Your task to perform on an android device: Open Reddit.com Image 0: 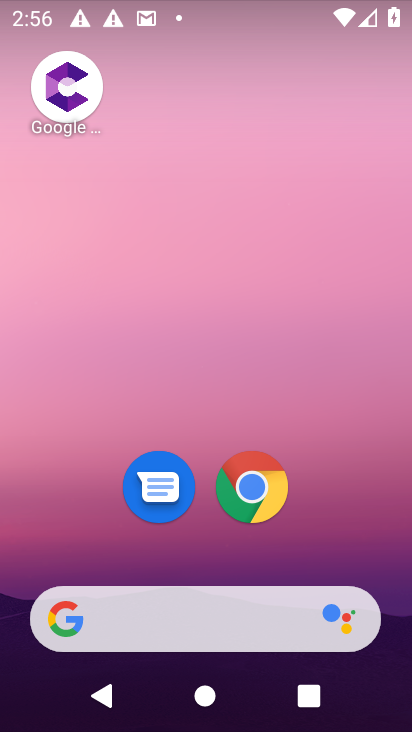
Step 0: drag from (159, 545) to (168, 230)
Your task to perform on an android device: Open Reddit.com Image 1: 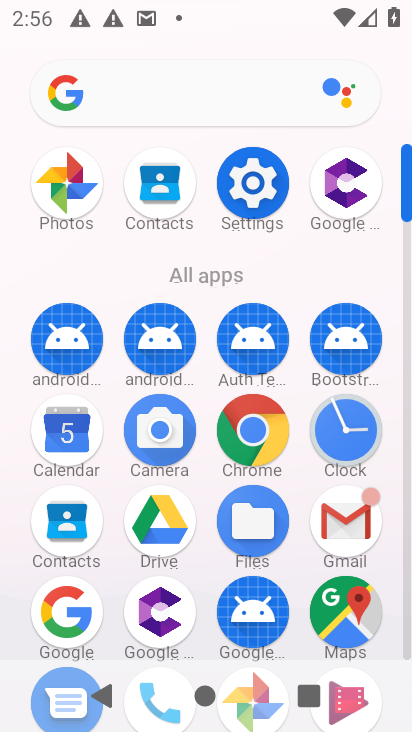
Step 1: click (265, 442)
Your task to perform on an android device: Open Reddit.com Image 2: 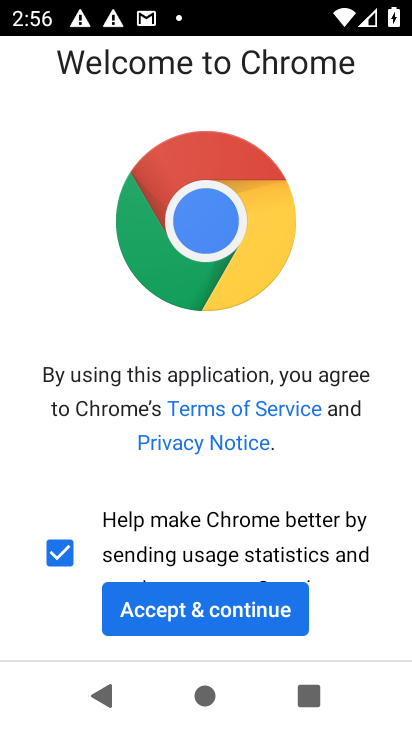
Step 2: click (255, 598)
Your task to perform on an android device: Open Reddit.com Image 3: 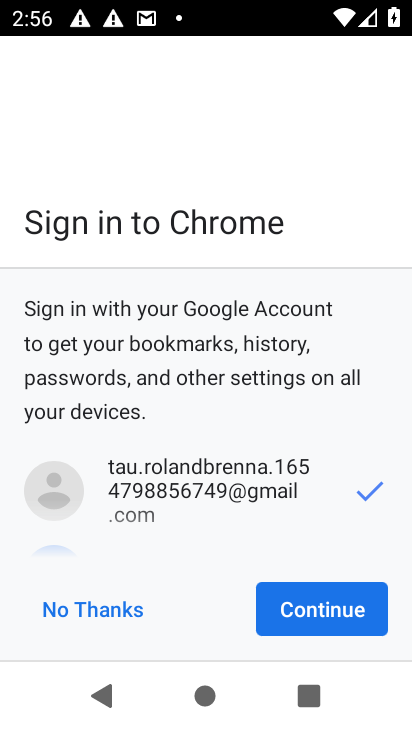
Step 3: click (335, 606)
Your task to perform on an android device: Open Reddit.com Image 4: 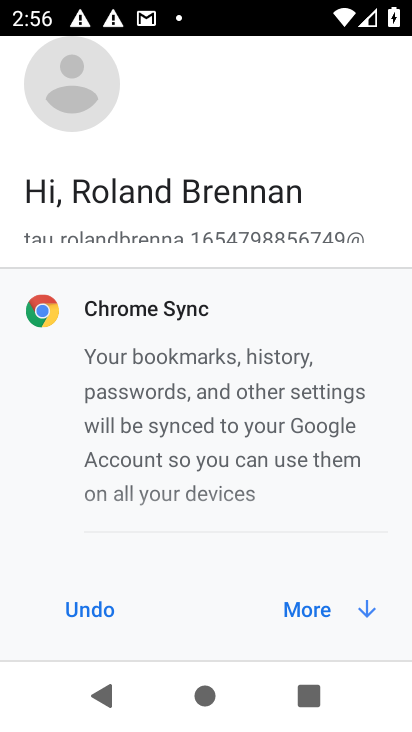
Step 4: click (291, 606)
Your task to perform on an android device: Open Reddit.com Image 5: 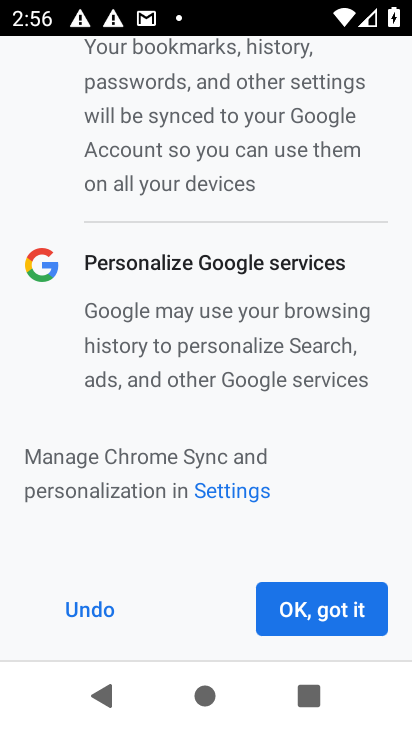
Step 5: click (291, 606)
Your task to perform on an android device: Open Reddit.com Image 6: 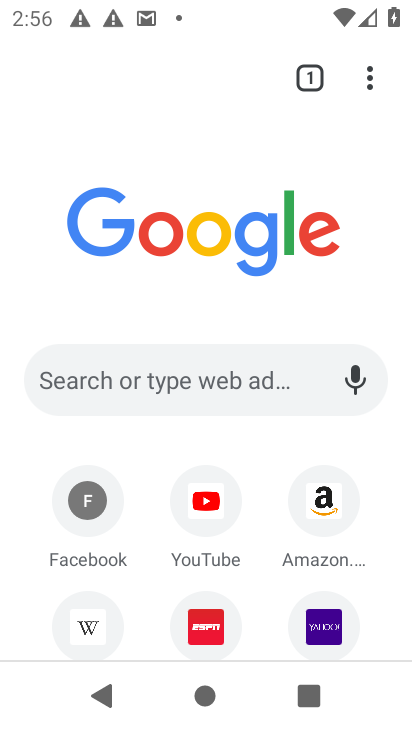
Step 6: click (209, 392)
Your task to perform on an android device: Open Reddit.com Image 7: 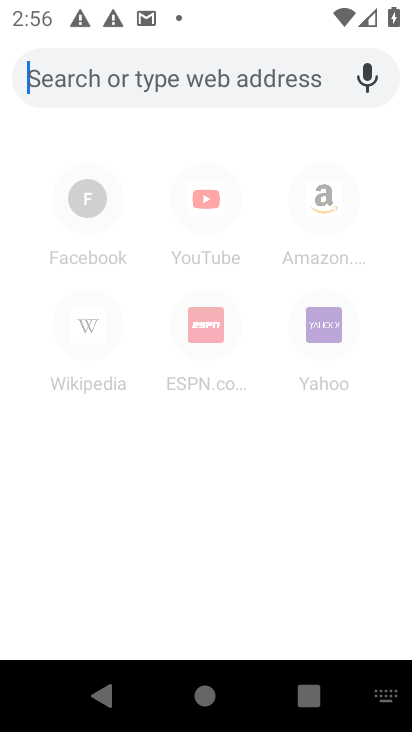
Step 7: type "Reddit.com "
Your task to perform on an android device: Open Reddit.com Image 8: 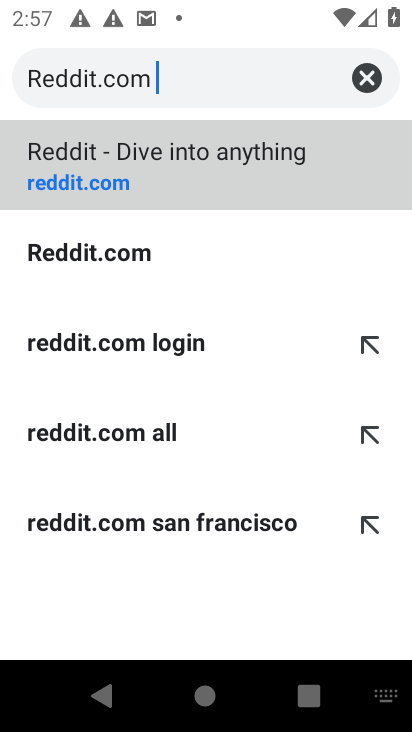
Step 8: click (89, 152)
Your task to perform on an android device: Open Reddit.com Image 9: 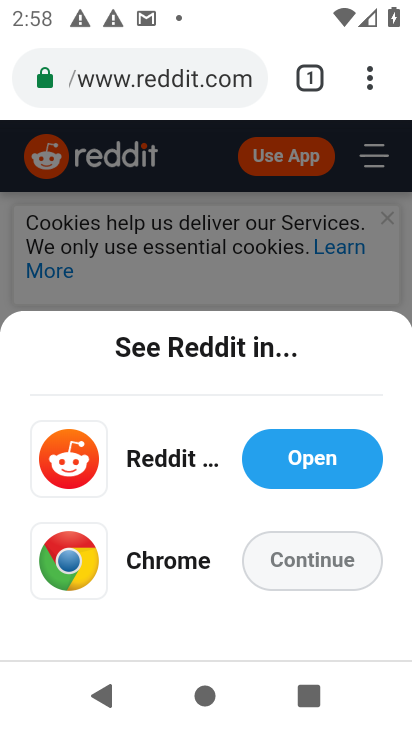
Step 9: task complete